Your task to perform on an android device: What's the weather? Image 0: 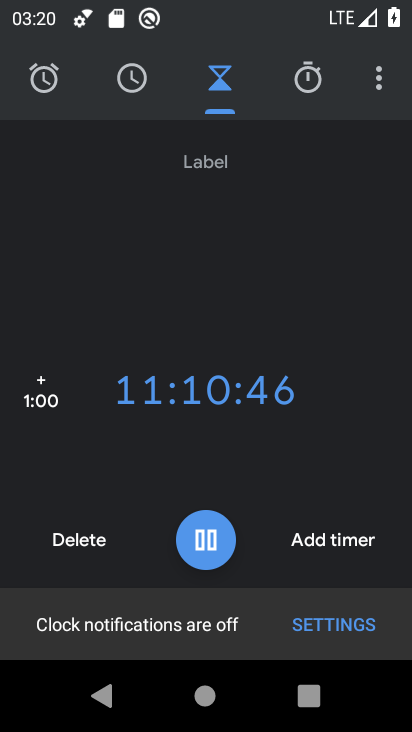
Step 0: press home button
Your task to perform on an android device: What's the weather? Image 1: 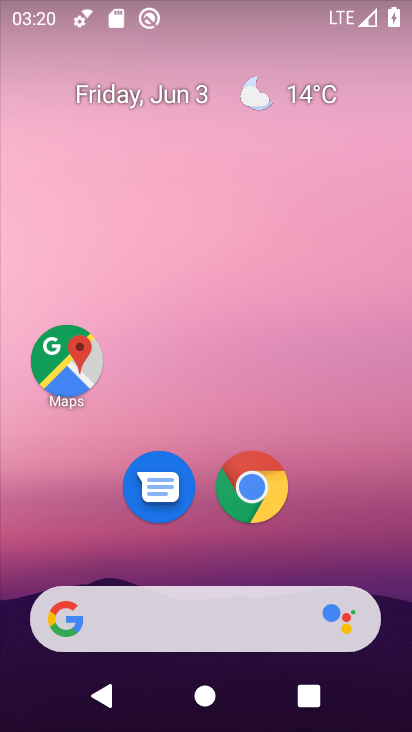
Step 1: click (303, 94)
Your task to perform on an android device: What's the weather? Image 2: 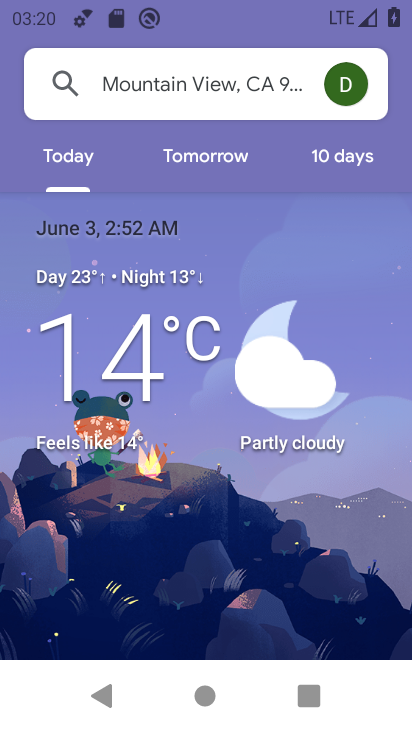
Step 2: task complete